Your task to perform on an android device: Play the last video I watched on Youtube Image 0: 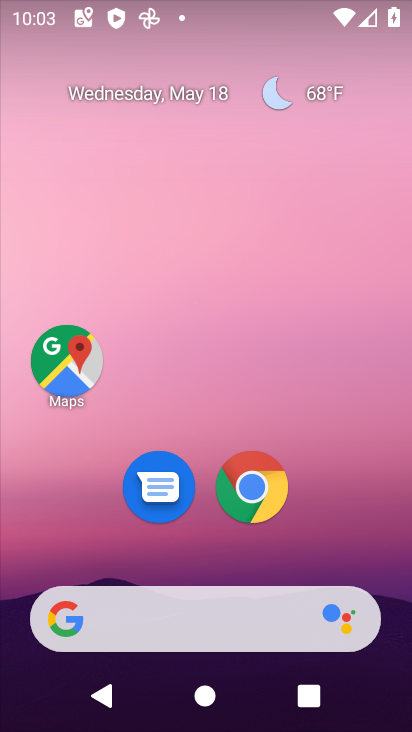
Step 0: drag from (359, 549) to (306, 57)
Your task to perform on an android device: Play the last video I watched on Youtube Image 1: 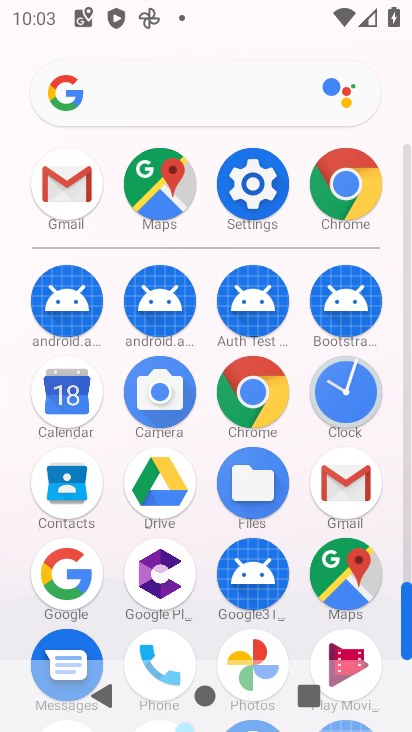
Step 1: drag from (196, 533) to (197, 202)
Your task to perform on an android device: Play the last video I watched on Youtube Image 2: 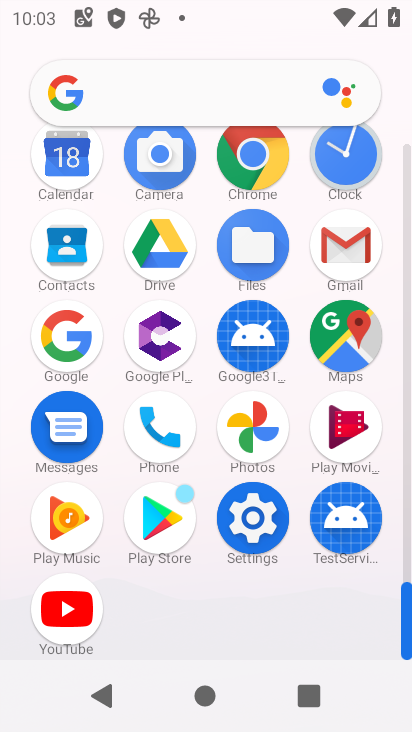
Step 2: click (64, 614)
Your task to perform on an android device: Play the last video I watched on Youtube Image 3: 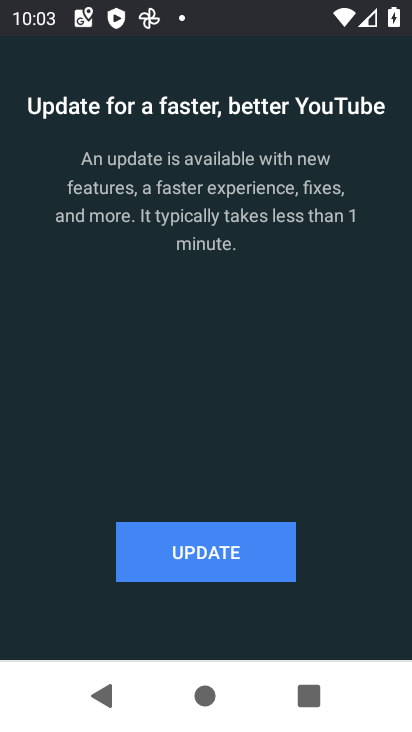
Step 3: click (249, 549)
Your task to perform on an android device: Play the last video I watched on Youtube Image 4: 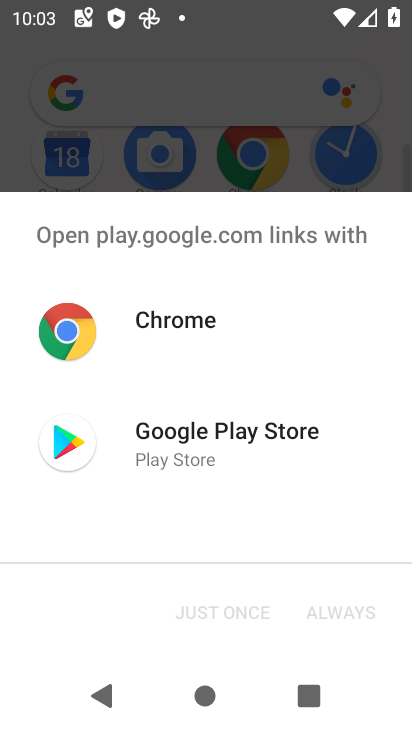
Step 4: click (201, 453)
Your task to perform on an android device: Play the last video I watched on Youtube Image 5: 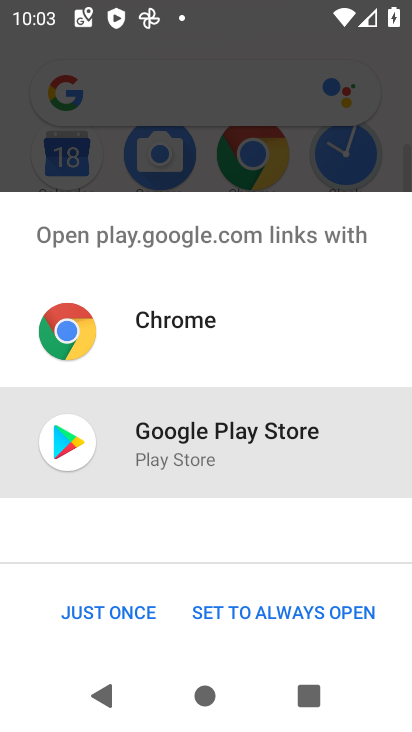
Step 5: click (139, 609)
Your task to perform on an android device: Play the last video I watched on Youtube Image 6: 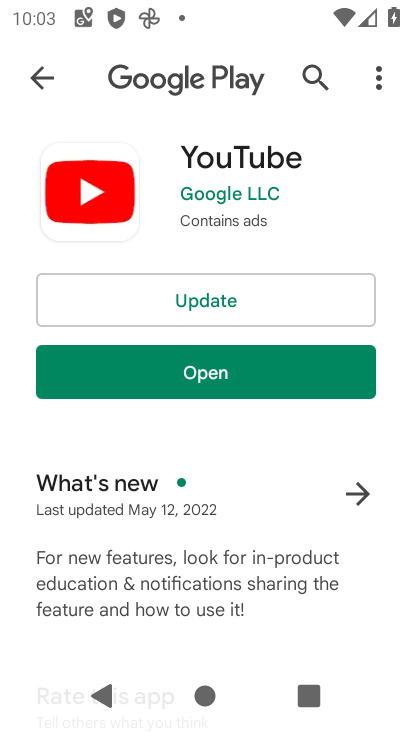
Step 6: click (238, 319)
Your task to perform on an android device: Play the last video I watched on Youtube Image 7: 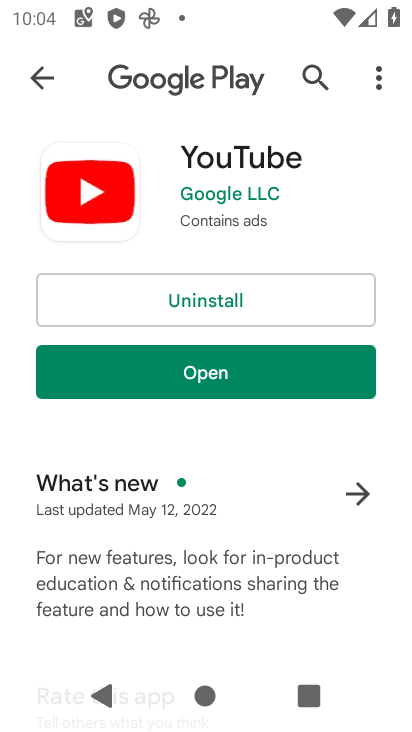
Step 7: click (245, 383)
Your task to perform on an android device: Play the last video I watched on Youtube Image 8: 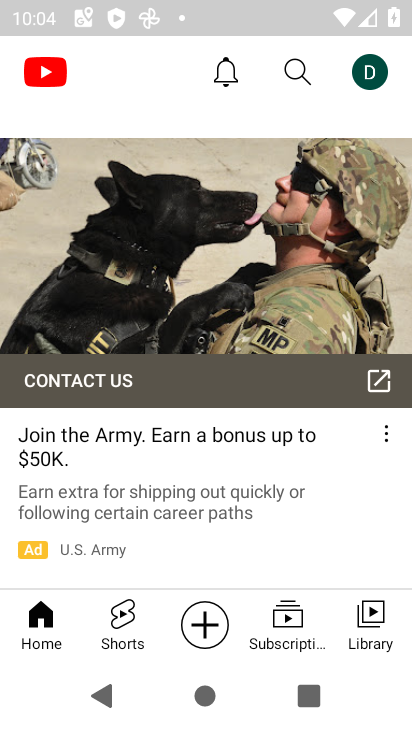
Step 8: click (367, 618)
Your task to perform on an android device: Play the last video I watched on Youtube Image 9: 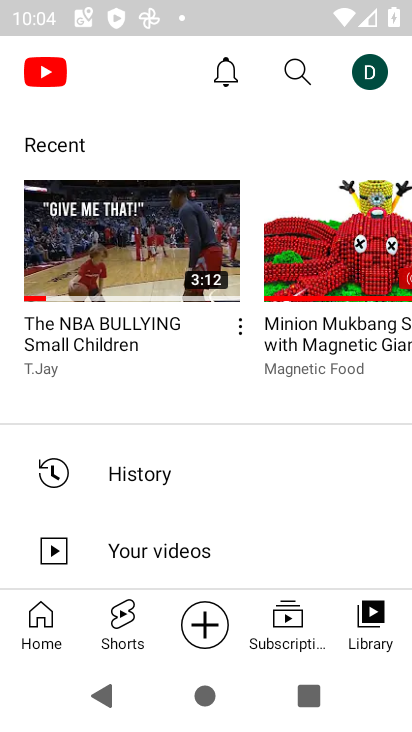
Step 9: task complete